Your task to perform on an android device: toggle translation in the chrome app Image 0: 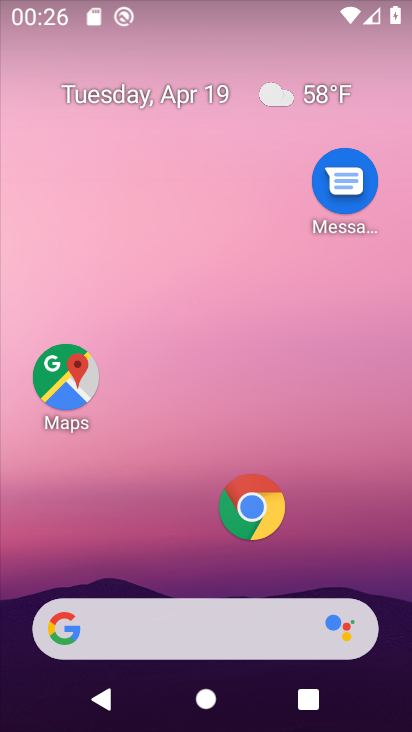
Step 0: click (240, 507)
Your task to perform on an android device: toggle translation in the chrome app Image 1: 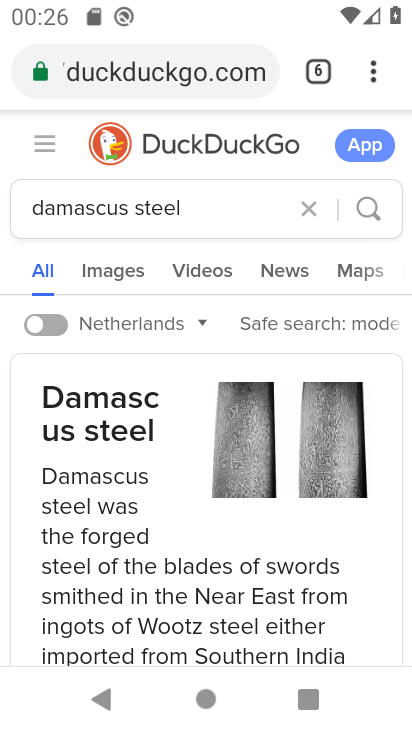
Step 1: click (373, 75)
Your task to perform on an android device: toggle translation in the chrome app Image 2: 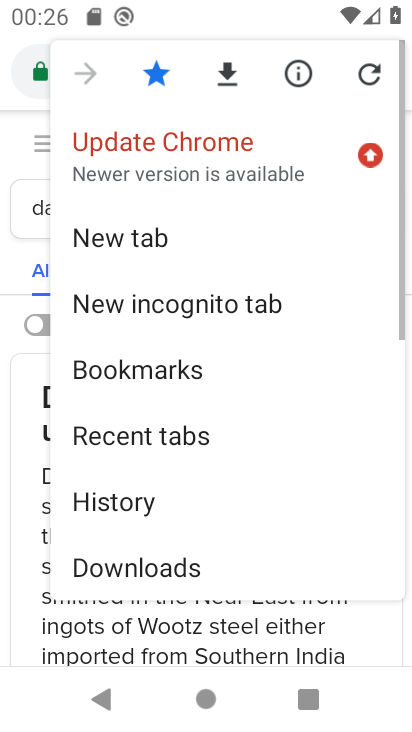
Step 2: drag from (171, 565) to (206, 160)
Your task to perform on an android device: toggle translation in the chrome app Image 3: 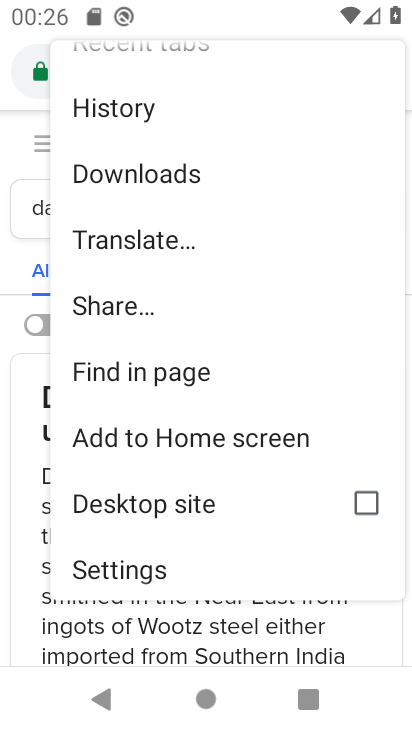
Step 3: drag from (161, 509) to (190, 238)
Your task to perform on an android device: toggle translation in the chrome app Image 4: 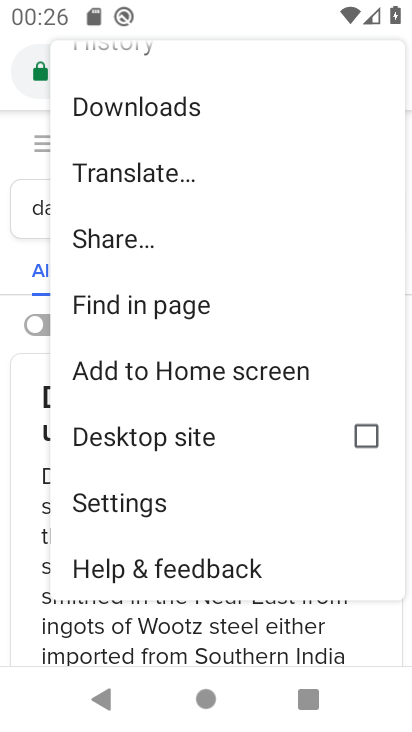
Step 4: click (117, 511)
Your task to perform on an android device: toggle translation in the chrome app Image 5: 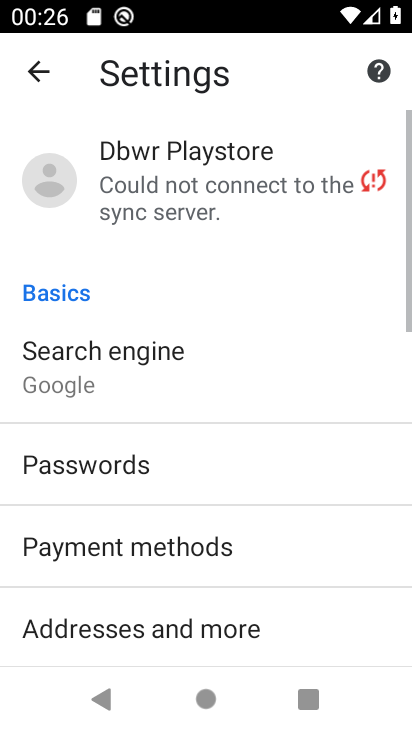
Step 5: drag from (177, 518) to (238, 174)
Your task to perform on an android device: toggle translation in the chrome app Image 6: 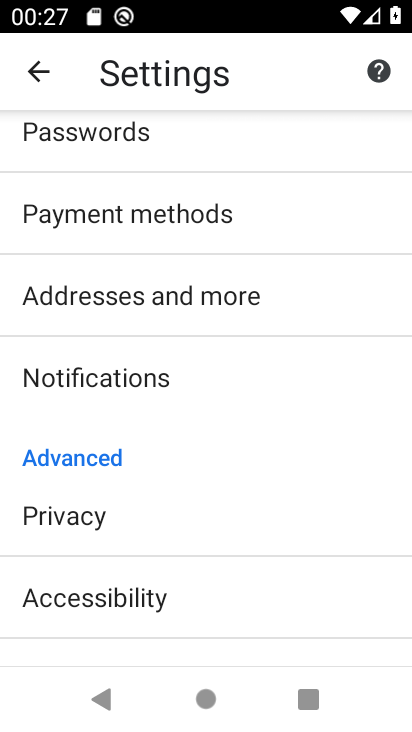
Step 6: drag from (124, 536) to (186, 117)
Your task to perform on an android device: toggle translation in the chrome app Image 7: 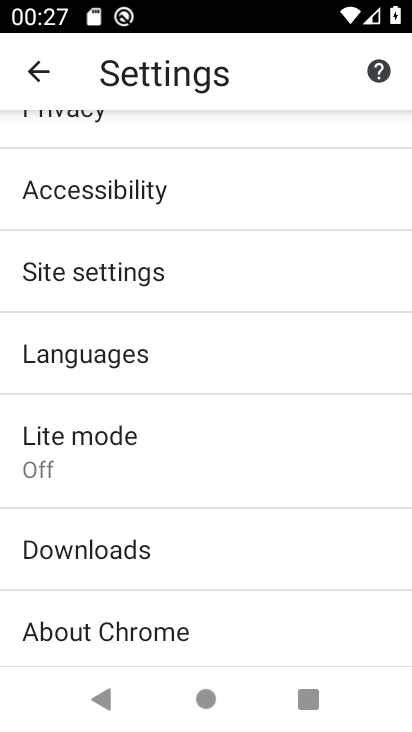
Step 7: click (112, 339)
Your task to perform on an android device: toggle translation in the chrome app Image 8: 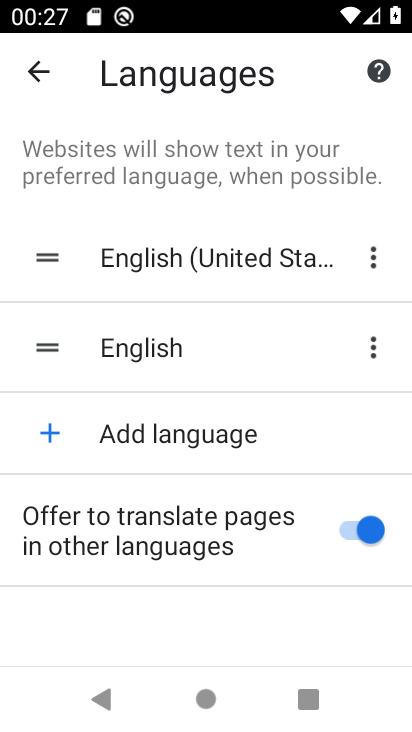
Step 8: click (333, 521)
Your task to perform on an android device: toggle translation in the chrome app Image 9: 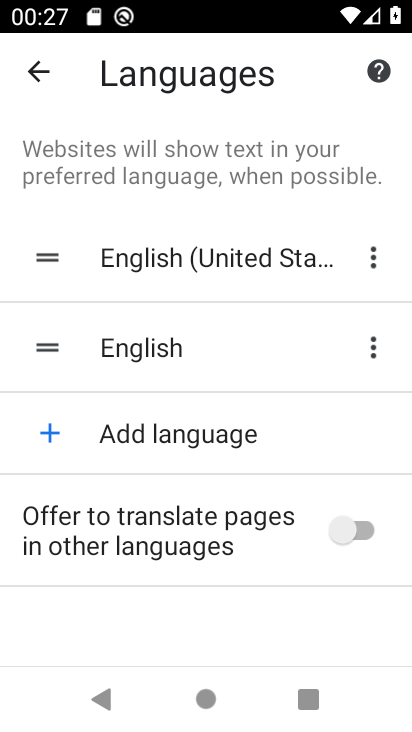
Step 9: task complete